Your task to perform on an android device: Go to sound settings Image 0: 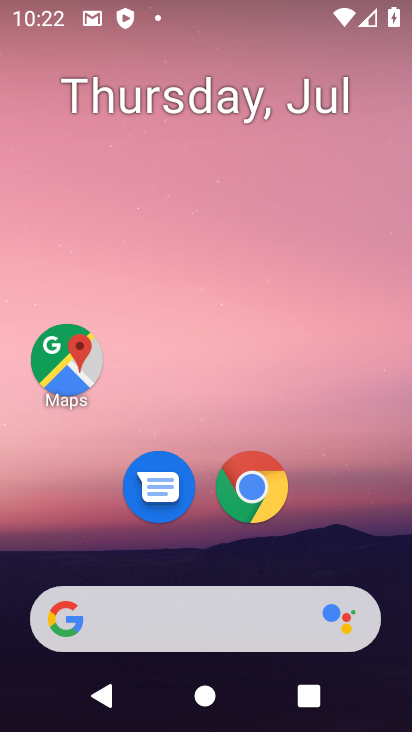
Step 0: drag from (192, 558) to (274, 2)
Your task to perform on an android device: Go to sound settings Image 1: 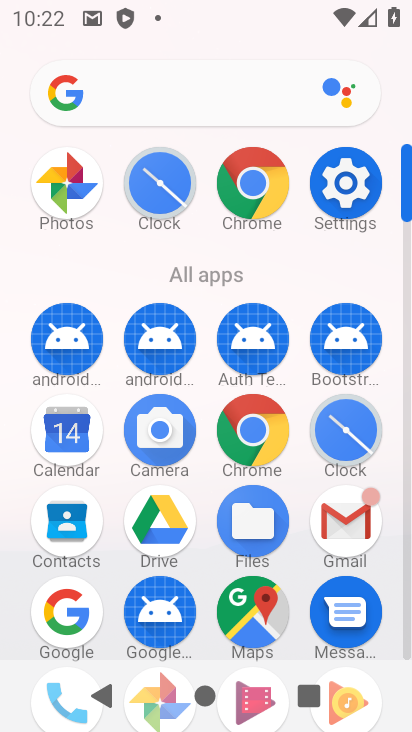
Step 1: click (333, 194)
Your task to perform on an android device: Go to sound settings Image 2: 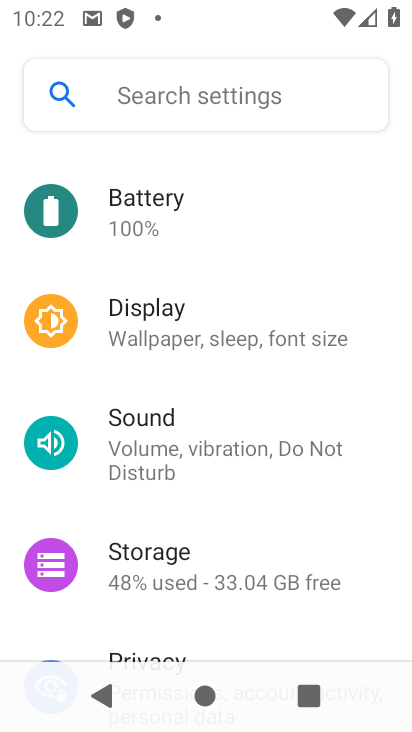
Step 2: click (168, 434)
Your task to perform on an android device: Go to sound settings Image 3: 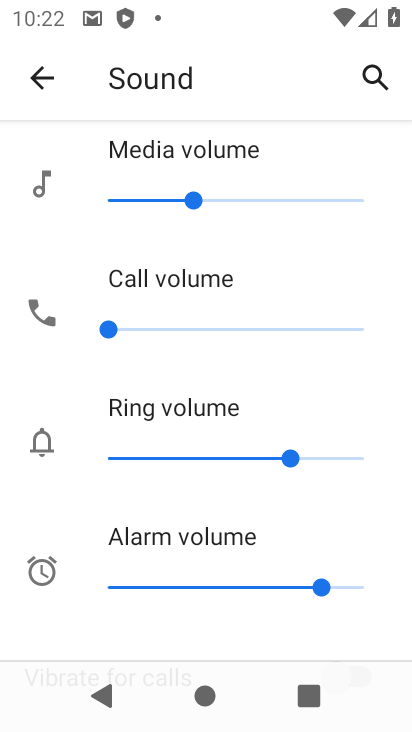
Step 3: task complete